Your task to perform on an android device: find photos in the google photos app Image 0: 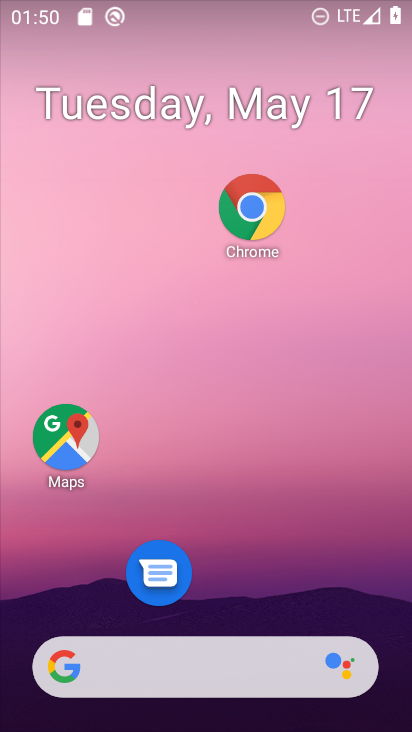
Step 0: drag from (240, 558) to (258, 10)
Your task to perform on an android device: find photos in the google photos app Image 1: 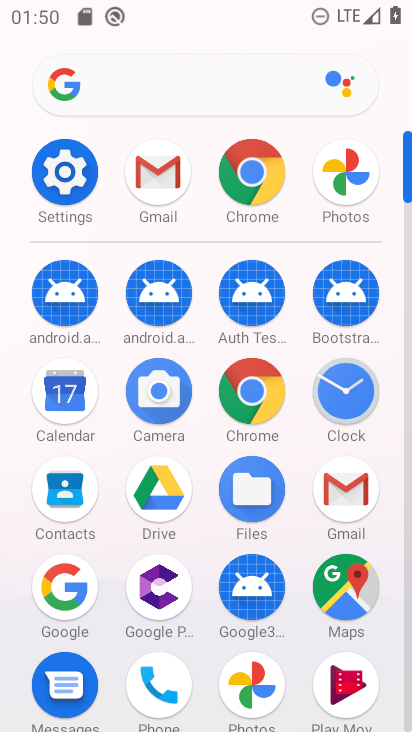
Step 1: click (238, 695)
Your task to perform on an android device: find photos in the google photos app Image 2: 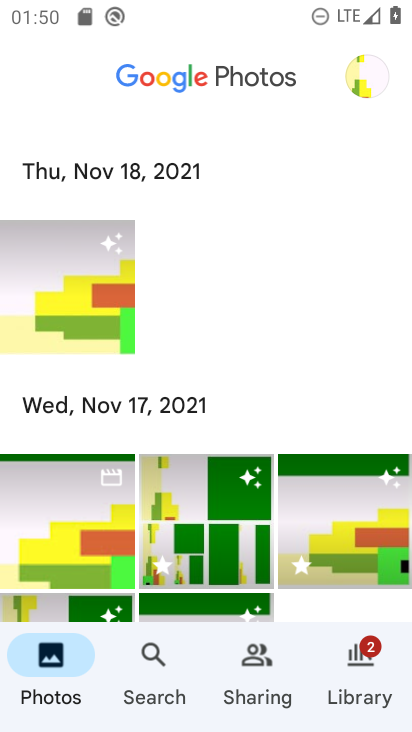
Step 2: task complete